Your task to perform on an android device: open the mobile data screen to see how much data has been used Image 0: 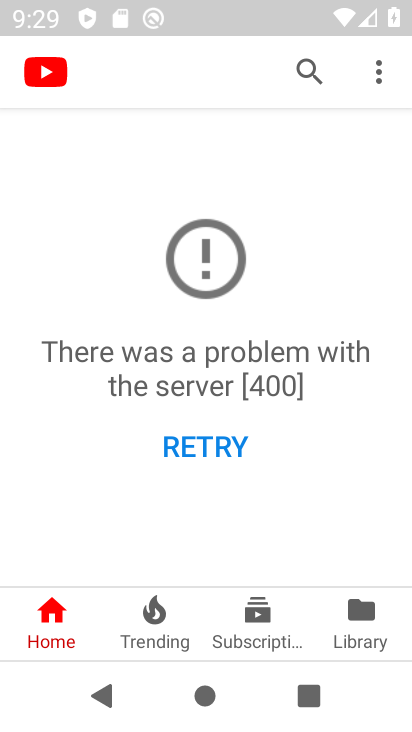
Step 0: drag from (292, 16) to (243, 578)
Your task to perform on an android device: open the mobile data screen to see how much data has been used Image 1: 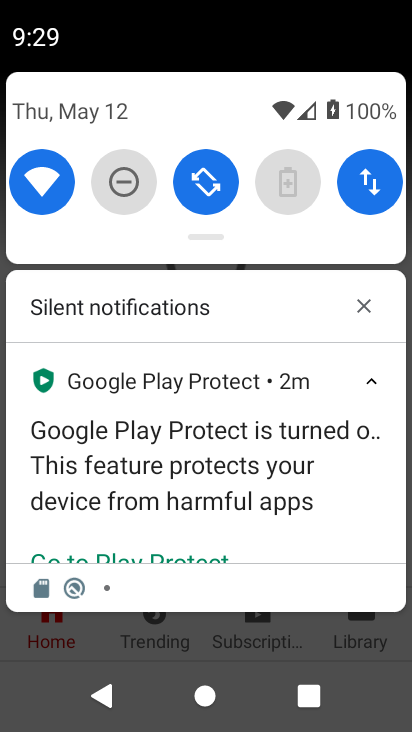
Step 1: click (366, 193)
Your task to perform on an android device: open the mobile data screen to see how much data has been used Image 2: 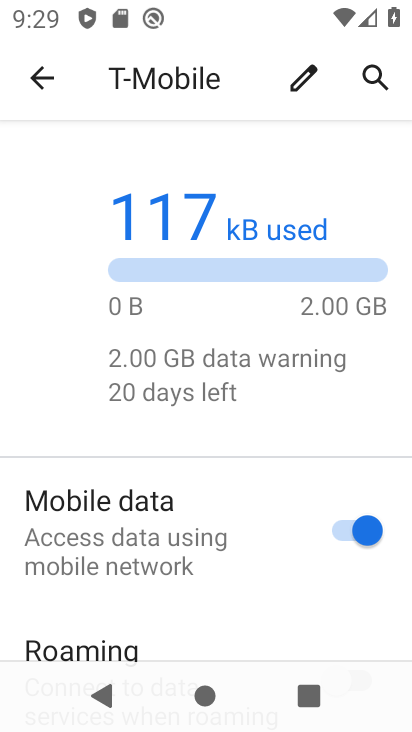
Step 2: task complete